Your task to perform on an android device: Search for "asus rog" on costco.com, select the first entry, add it to the cart, then select checkout. Image 0: 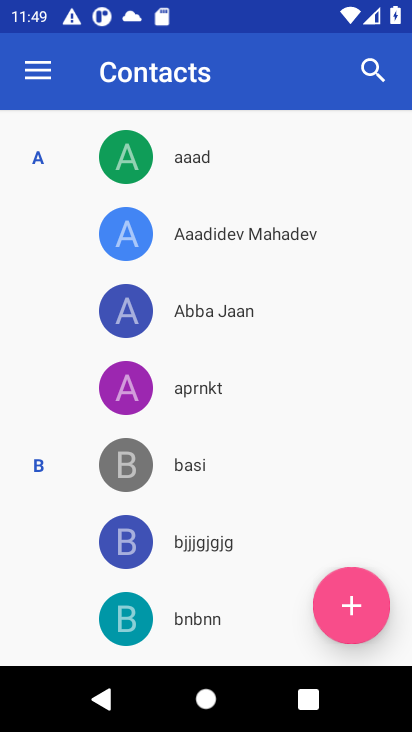
Step 0: press home button
Your task to perform on an android device: Search for "asus rog" on costco.com, select the first entry, add it to the cart, then select checkout. Image 1: 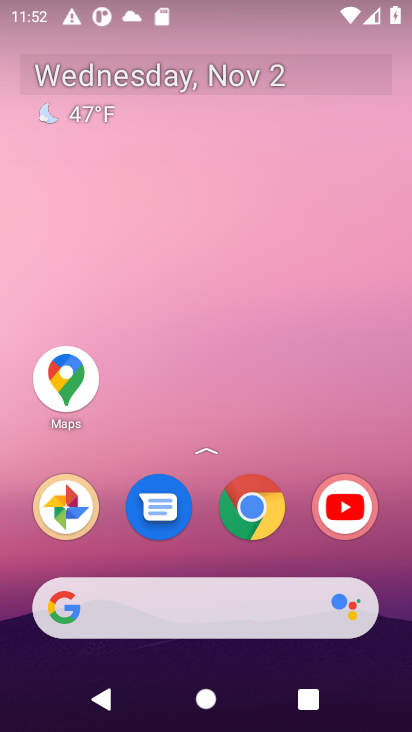
Step 1: task complete